Your task to perform on an android device: toggle data saver in the chrome app Image 0: 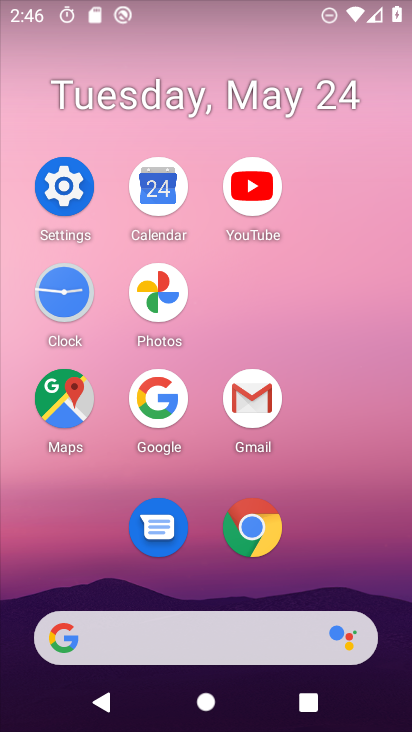
Step 0: press home button
Your task to perform on an android device: toggle data saver in the chrome app Image 1: 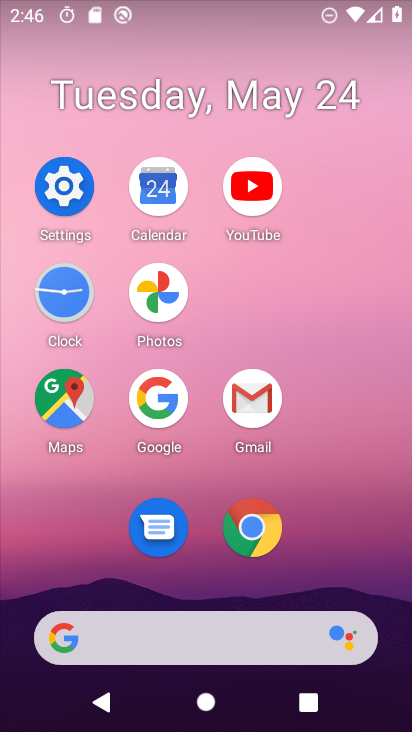
Step 1: click (243, 525)
Your task to perform on an android device: toggle data saver in the chrome app Image 2: 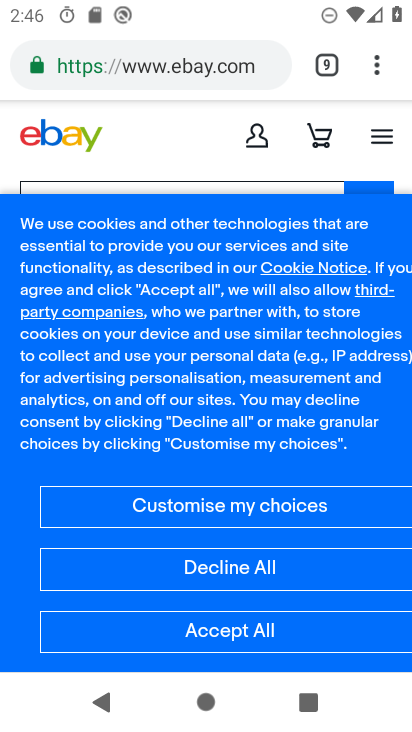
Step 2: click (378, 73)
Your task to perform on an android device: toggle data saver in the chrome app Image 3: 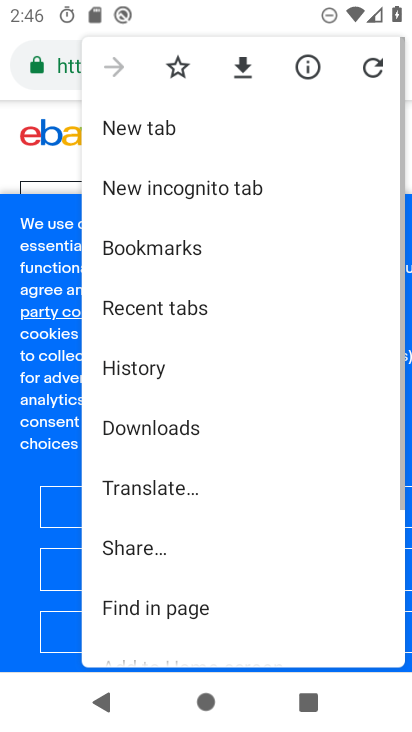
Step 3: drag from (248, 531) to (281, 156)
Your task to perform on an android device: toggle data saver in the chrome app Image 4: 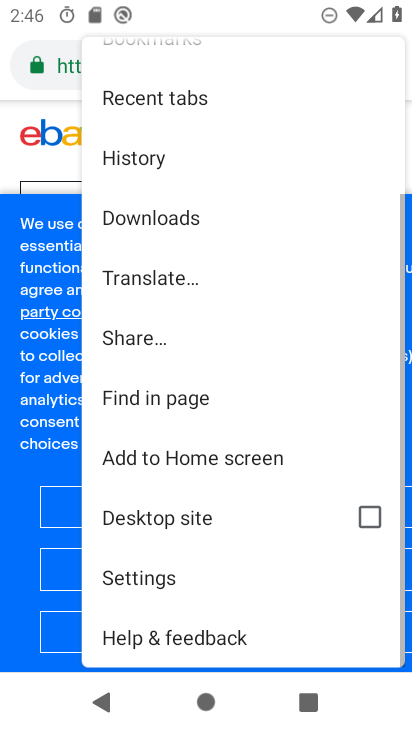
Step 4: click (186, 580)
Your task to perform on an android device: toggle data saver in the chrome app Image 5: 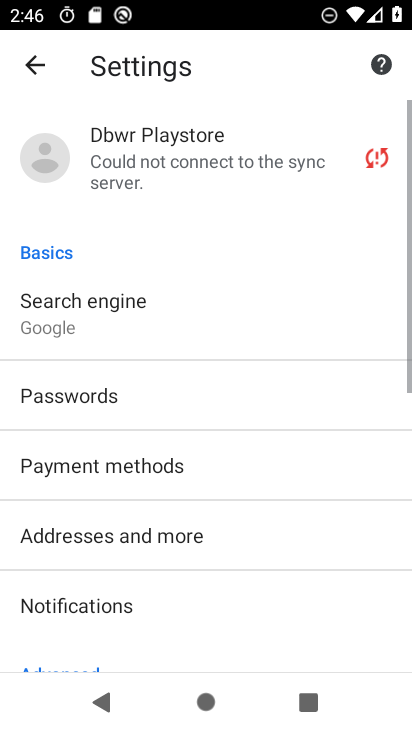
Step 5: drag from (186, 580) to (229, 220)
Your task to perform on an android device: toggle data saver in the chrome app Image 6: 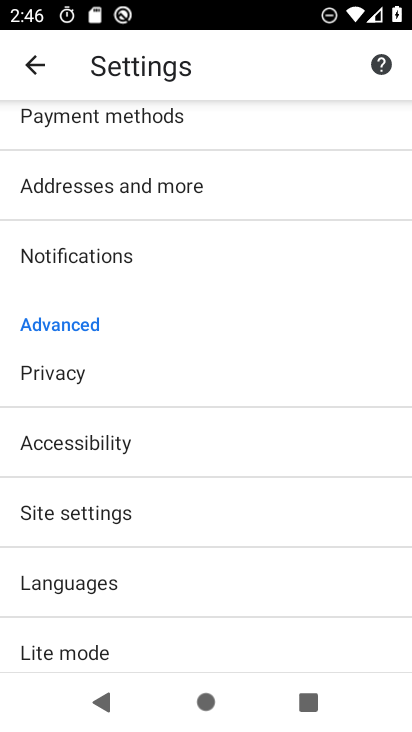
Step 6: drag from (191, 556) to (232, 205)
Your task to perform on an android device: toggle data saver in the chrome app Image 7: 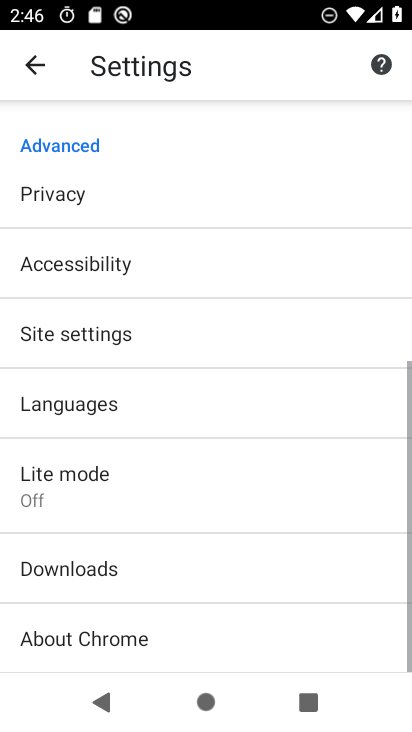
Step 7: click (172, 478)
Your task to perform on an android device: toggle data saver in the chrome app Image 8: 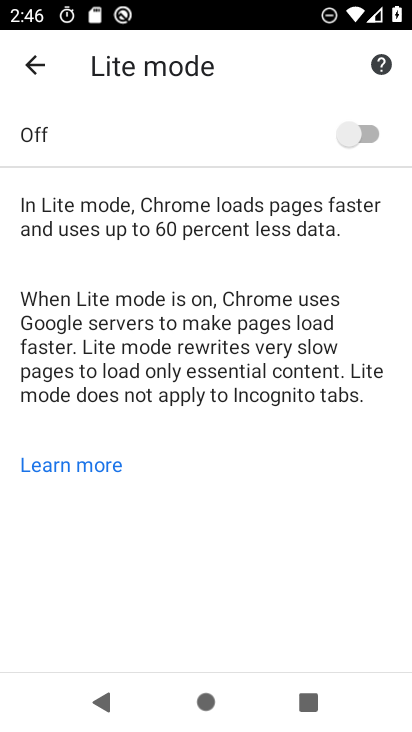
Step 8: click (356, 149)
Your task to perform on an android device: toggle data saver in the chrome app Image 9: 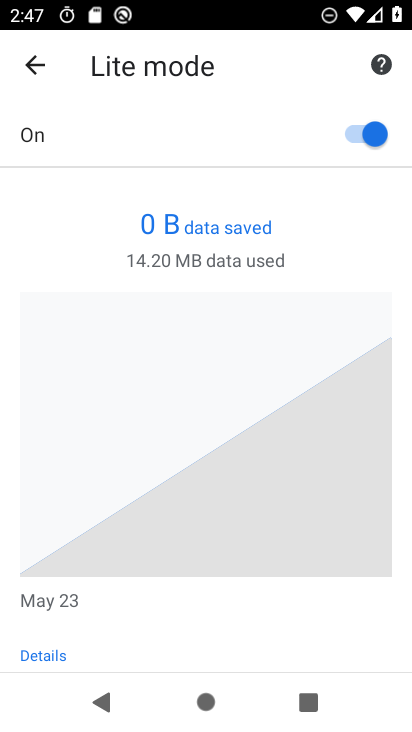
Step 9: task complete